Your task to perform on an android device: Open the Play Movies app and select the watchlist tab. Image 0: 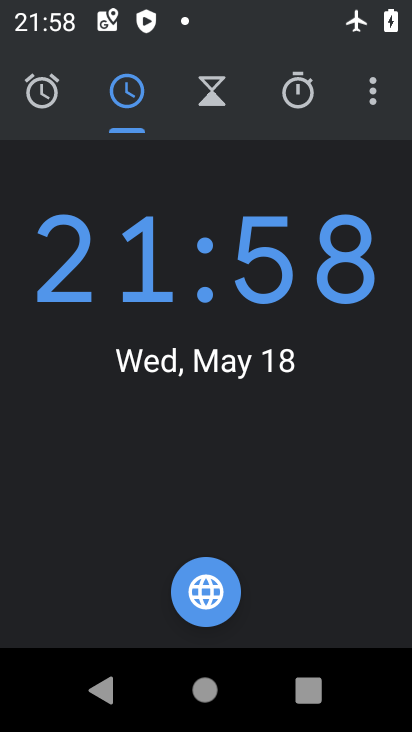
Step 0: press home button
Your task to perform on an android device: Open the Play Movies app and select the watchlist tab. Image 1: 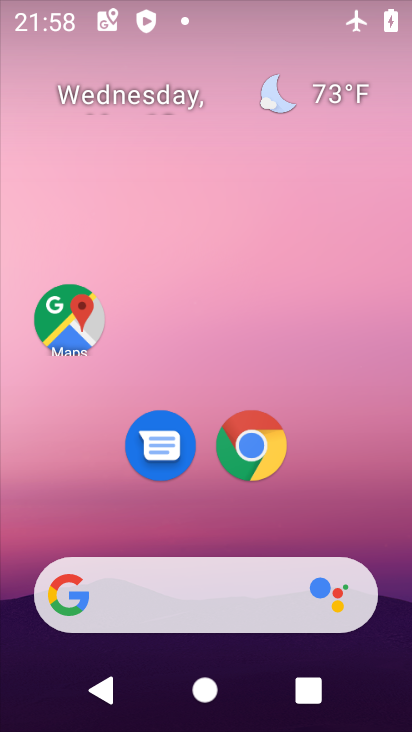
Step 1: drag from (301, 543) to (303, 191)
Your task to perform on an android device: Open the Play Movies app and select the watchlist tab. Image 2: 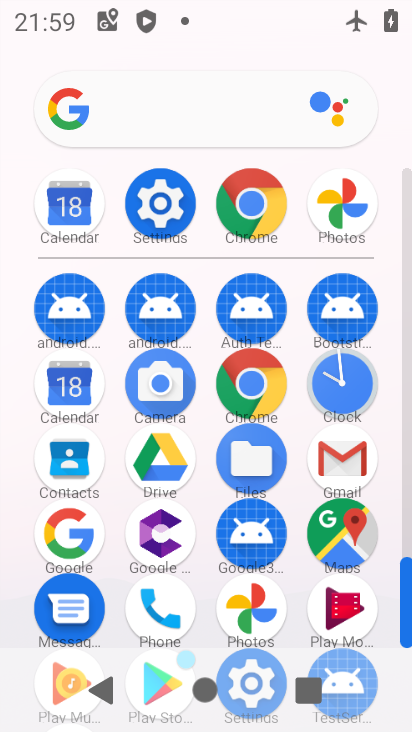
Step 2: click (340, 601)
Your task to perform on an android device: Open the Play Movies app and select the watchlist tab. Image 3: 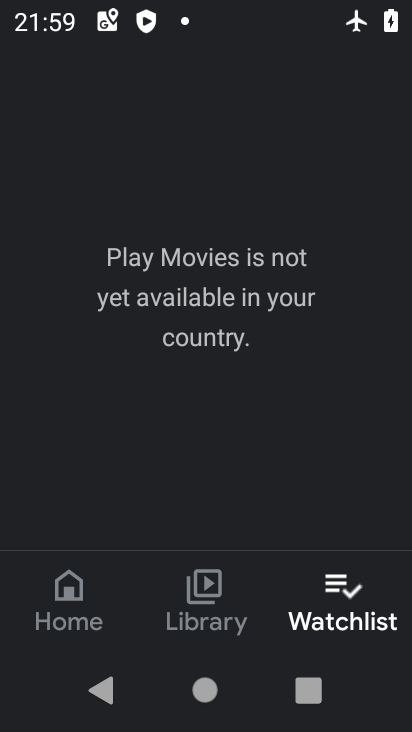
Step 3: task complete